Your task to perform on an android device: set the timer Image 0: 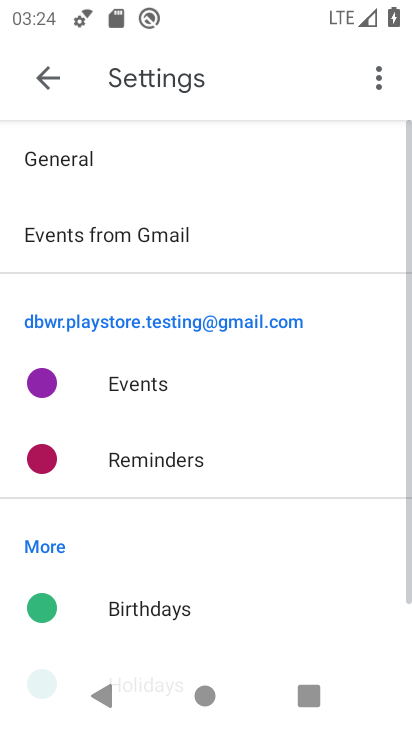
Step 0: press home button
Your task to perform on an android device: set the timer Image 1: 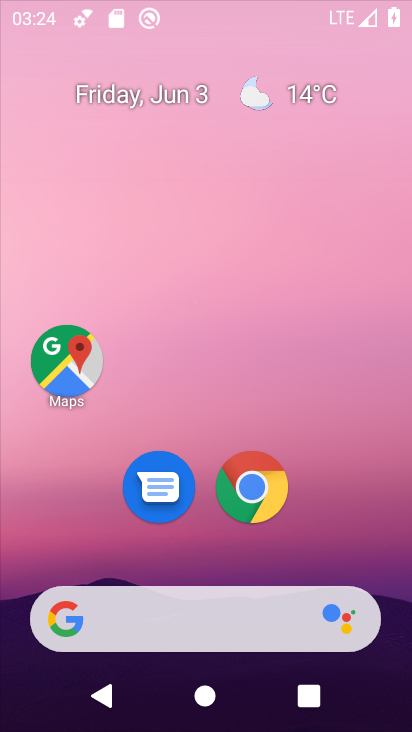
Step 1: drag from (292, 238) to (216, 0)
Your task to perform on an android device: set the timer Image 2: 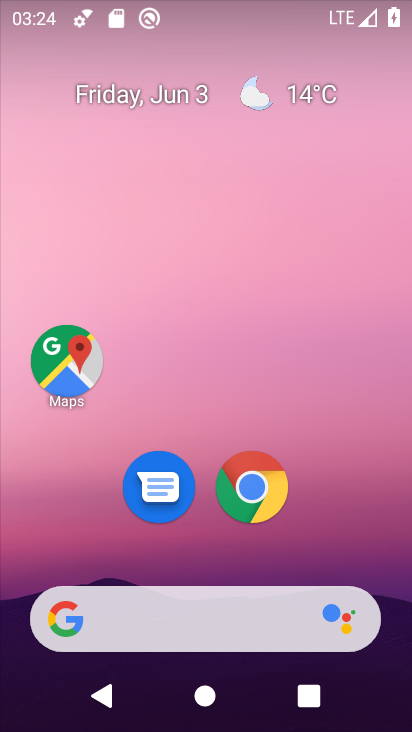
Step 2: drag from (329, 331) to (266, 45)
Your task to perform on an android device: set the timer Image 3: 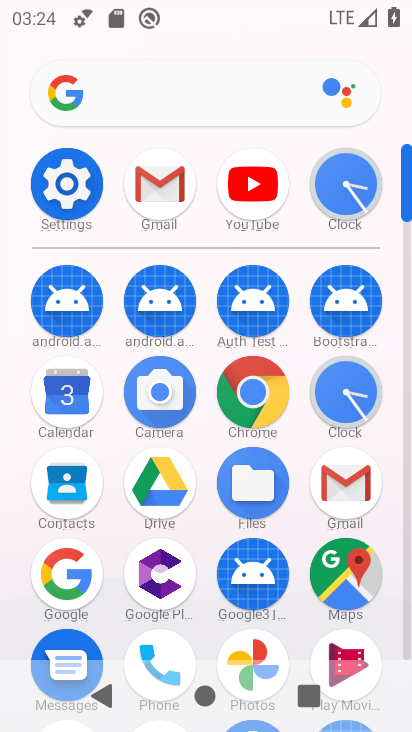
Step 3: click (336, 203)
Your task to perform on an android device: set the timer Image 4: 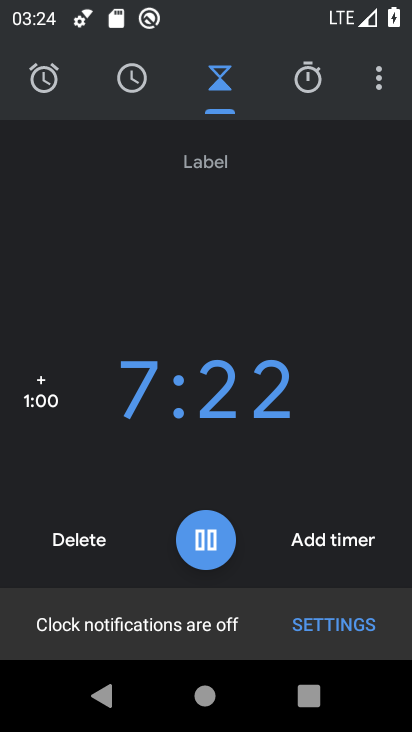
Step 4: click (77, 542)
Your task to perform on an android device: set the timer Image 5: 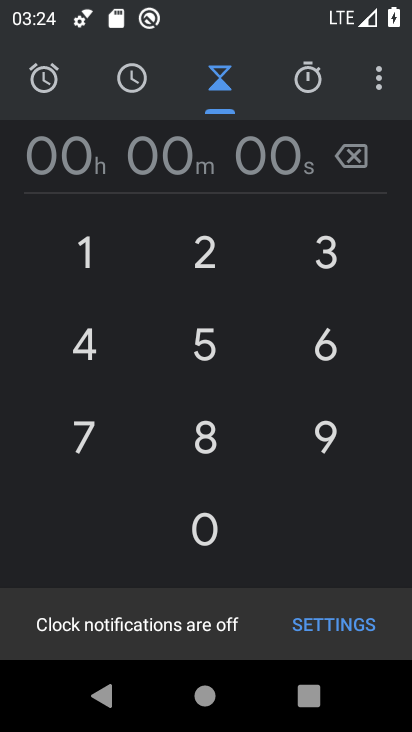
Step 5: click (218, 543)
Your task to perform on an android device: set the timer Image 6: 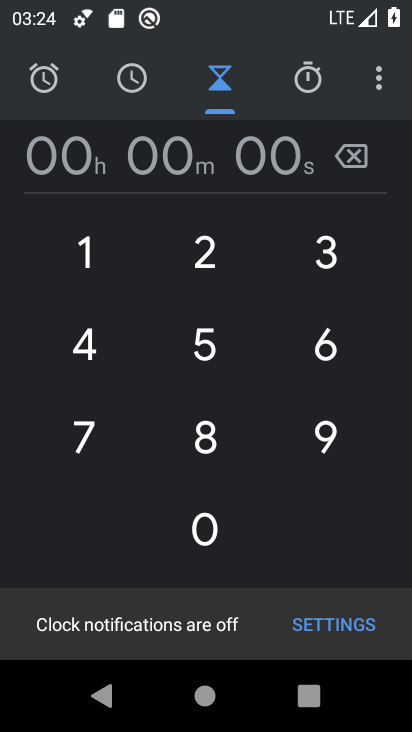
Step 6: click (218, 543)
Your task to perform on an android device: set the timer Image 7: 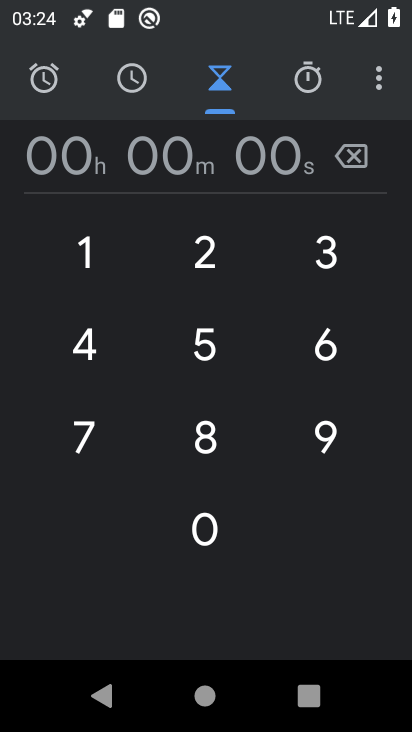
Step 7: click (97, 271)
Your task to perform on an android device: set the timer Image 8: 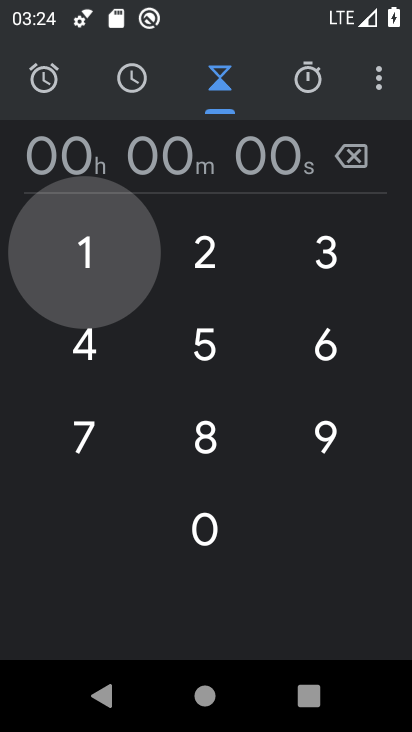
Step 8: click (97, 271)
Your task to perform on an android device: set the timer Image 9: 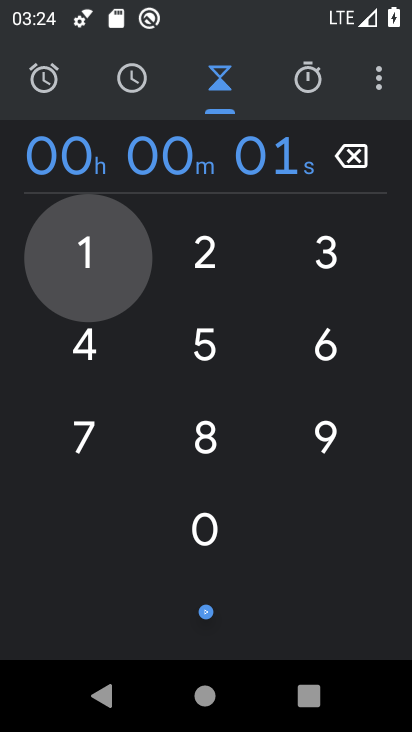
Step 9: click (97, 271)
Your task to perform on an android device: set the timer Image 10: 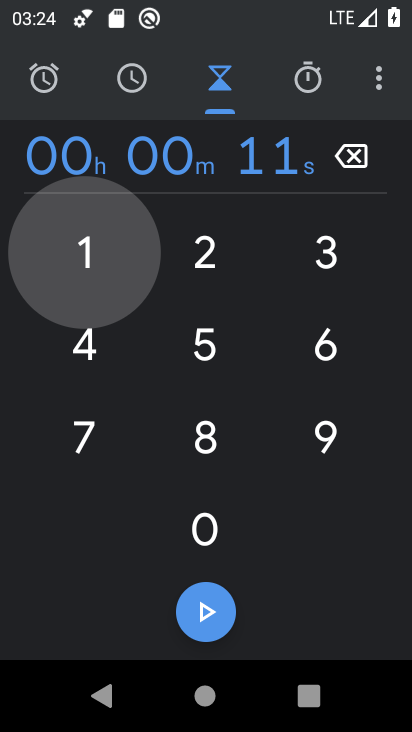
Step 10: click (97, 271)
Your task to perform on an android device: set the timer Image 11: 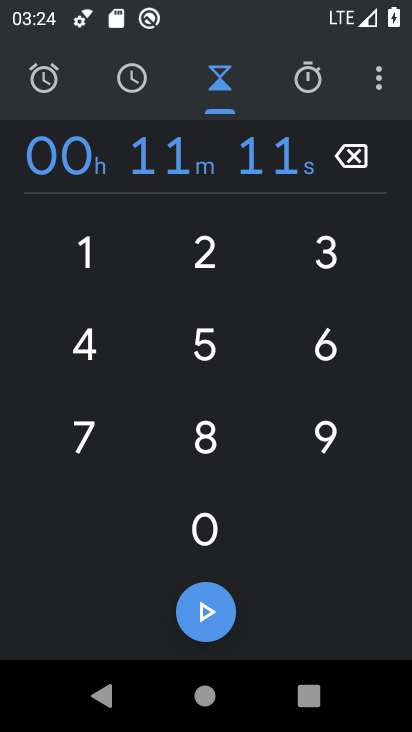
Step 11: click (98, 265)
Your task to perform on an android device: set the timer Image 12: 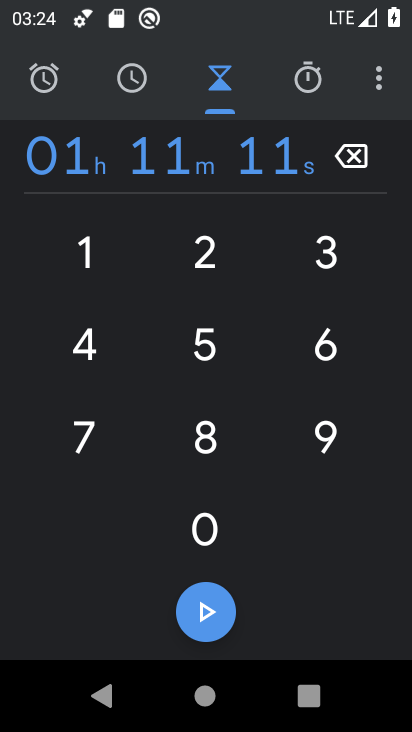
Step 12: task complete